Your task to perform on an android device: turn off notifications settings in the gmail app Image 0: 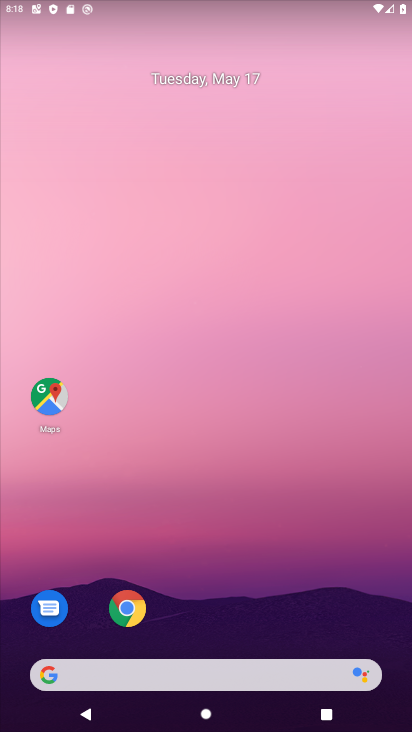
Step 0: drag from (221, 623) to (232, 0)
Your task to perform on an android device: turn off notifications settings in the gmail app Image 1: 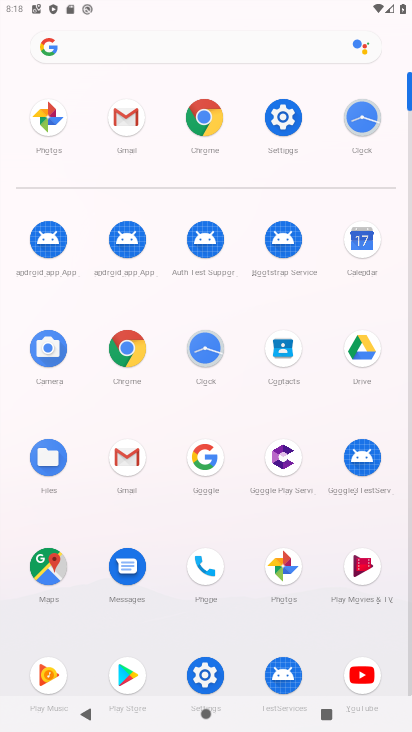
Step 1: click (285, 116)
Your task to perform on an android device: turn off notifications settings in the gmail app Image 2: 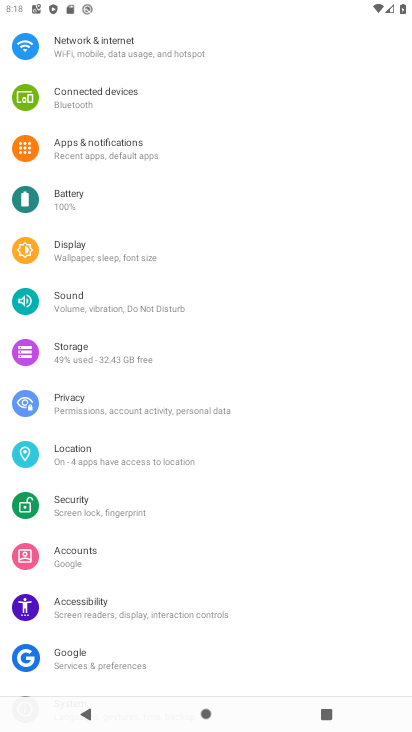
Step 2: click (96, 156)
Your task to perform on an android device: turn off notifications settings in the gmail app Image 3: 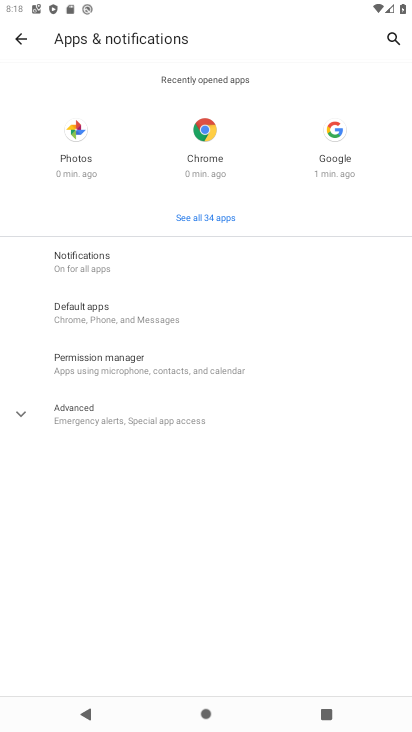
Step 3: click (225, 221)
Your task to perform on an android device: turn off notifications settings in the gmail app Image 4: 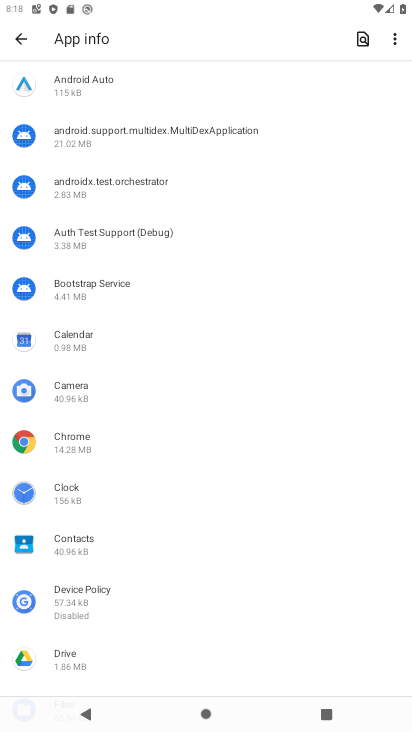
Step 4: drag from (163, 622) to (178, 166)
Your task to perform on an android device: turn off notifications settings in the gmail app Image 5: 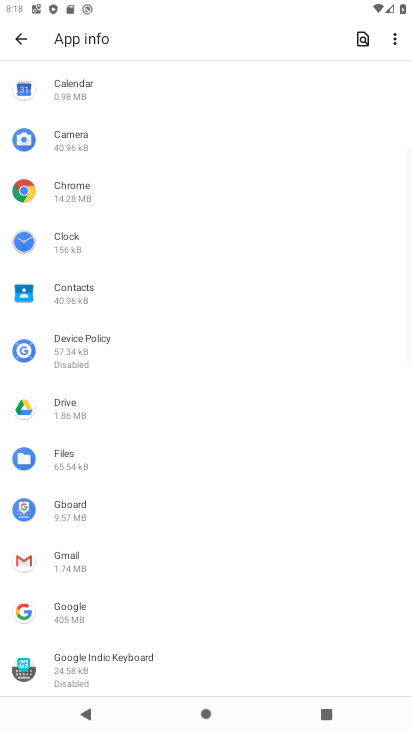
Step 5: click (56, 566)
Your task to perform on an android device: turn off notifications settings in the gmail app Image 6: 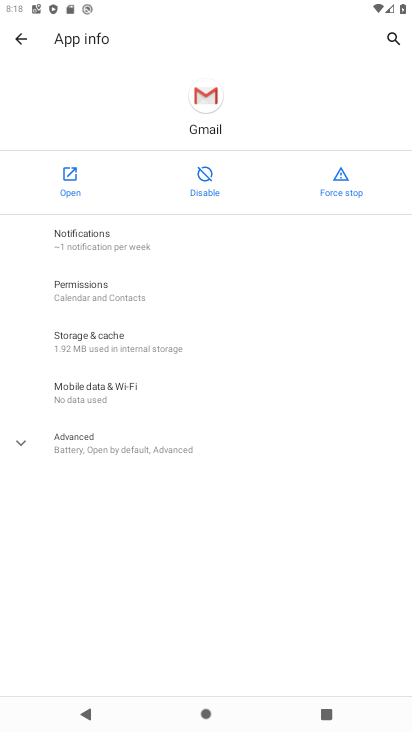
Step 6: click (101, 233)
Your task to perform on an android device: turn off notifications settings in the gmail app Image 7: 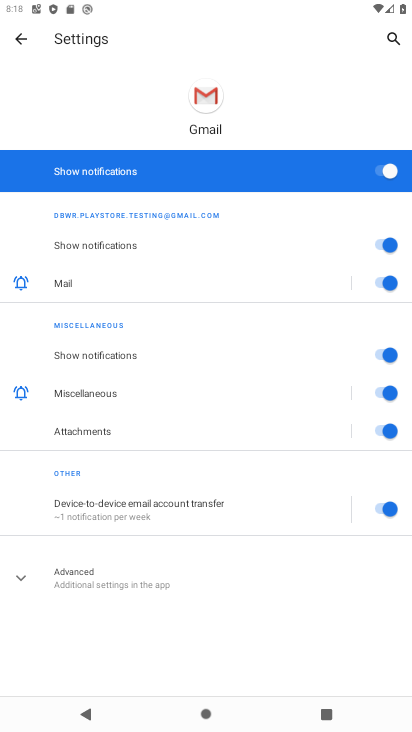
Step 7: click (369, 175)
Your task to perform on an android device: turn off notifications settings in the gmail app Image 8: 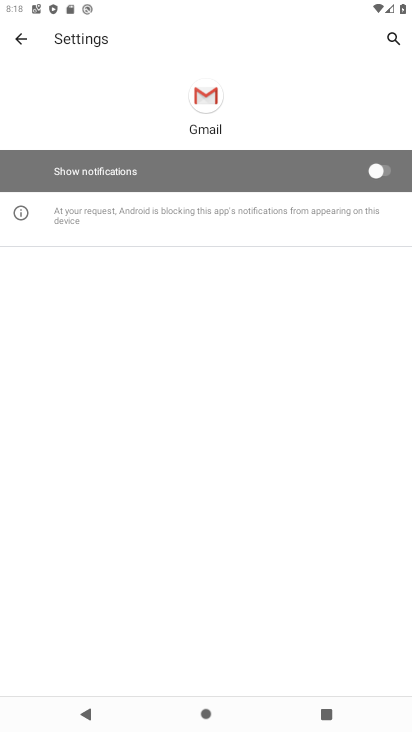
Step 8: task complete